Your task to perform on an android device: uninstall "LinkedIn" Image 0: 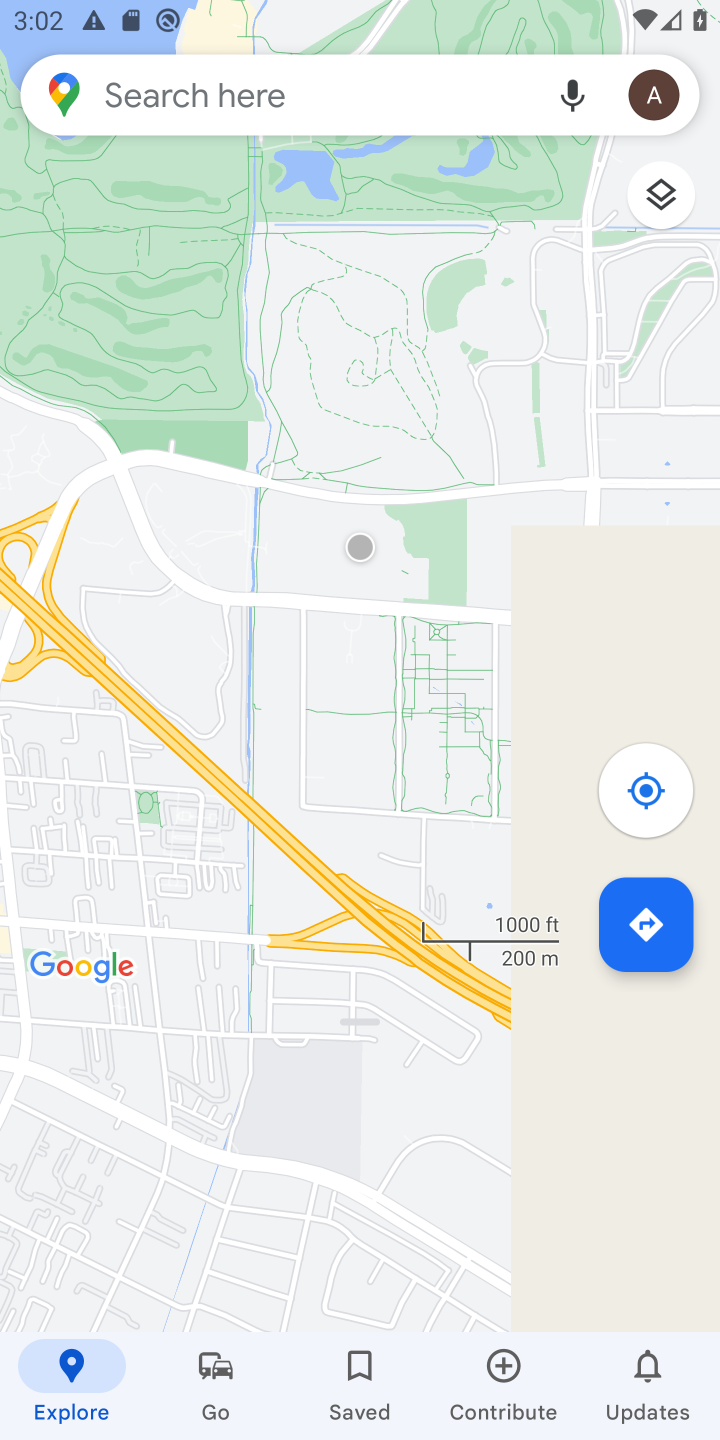
Step 0: press home button
Your task to perform on an android device: uninstall "LinkedIn" Image 1: 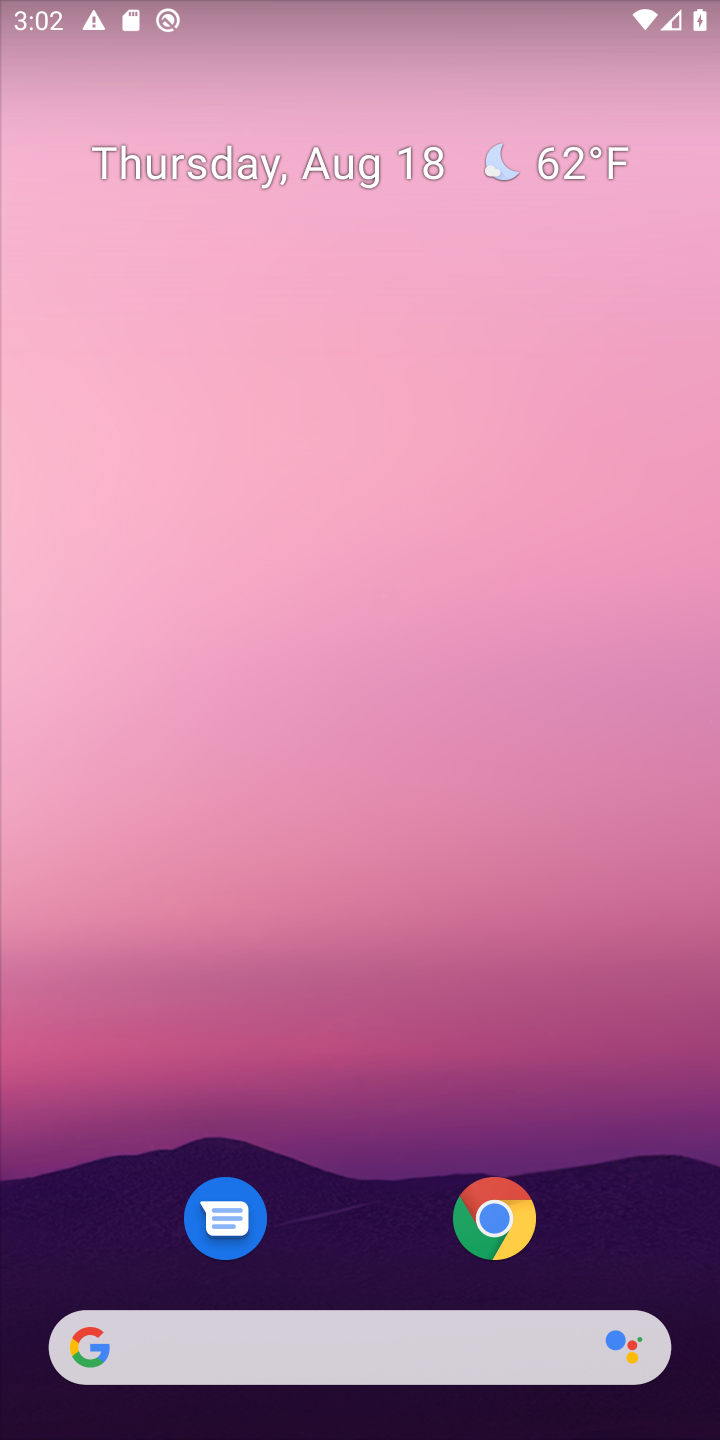
Step 1: drag from (381, 1105) to (404, 378)
Your task to perform on an android device: uninstall "LinkedIn" Image 2: 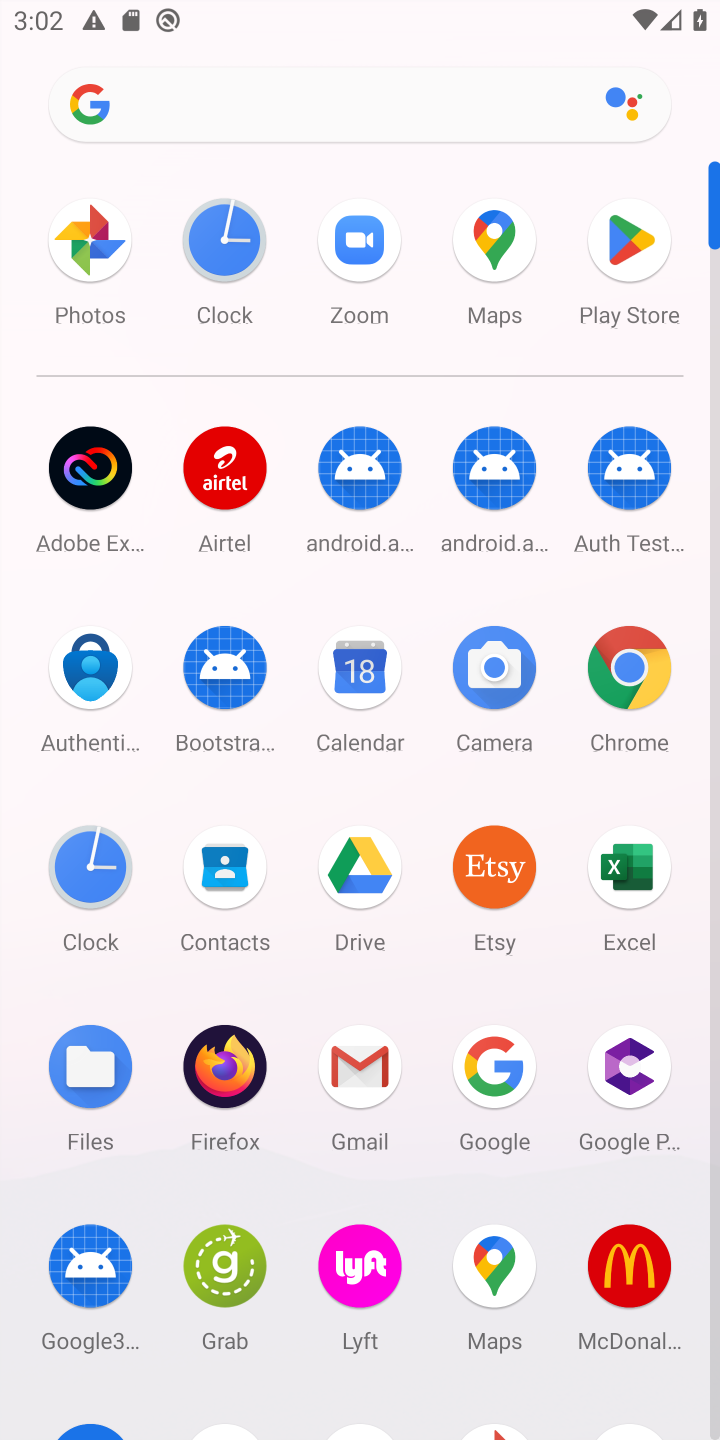
Step 2: click (609, 247)
Your task to perform on an android device: uninstall "LinkedIn" Image 3: 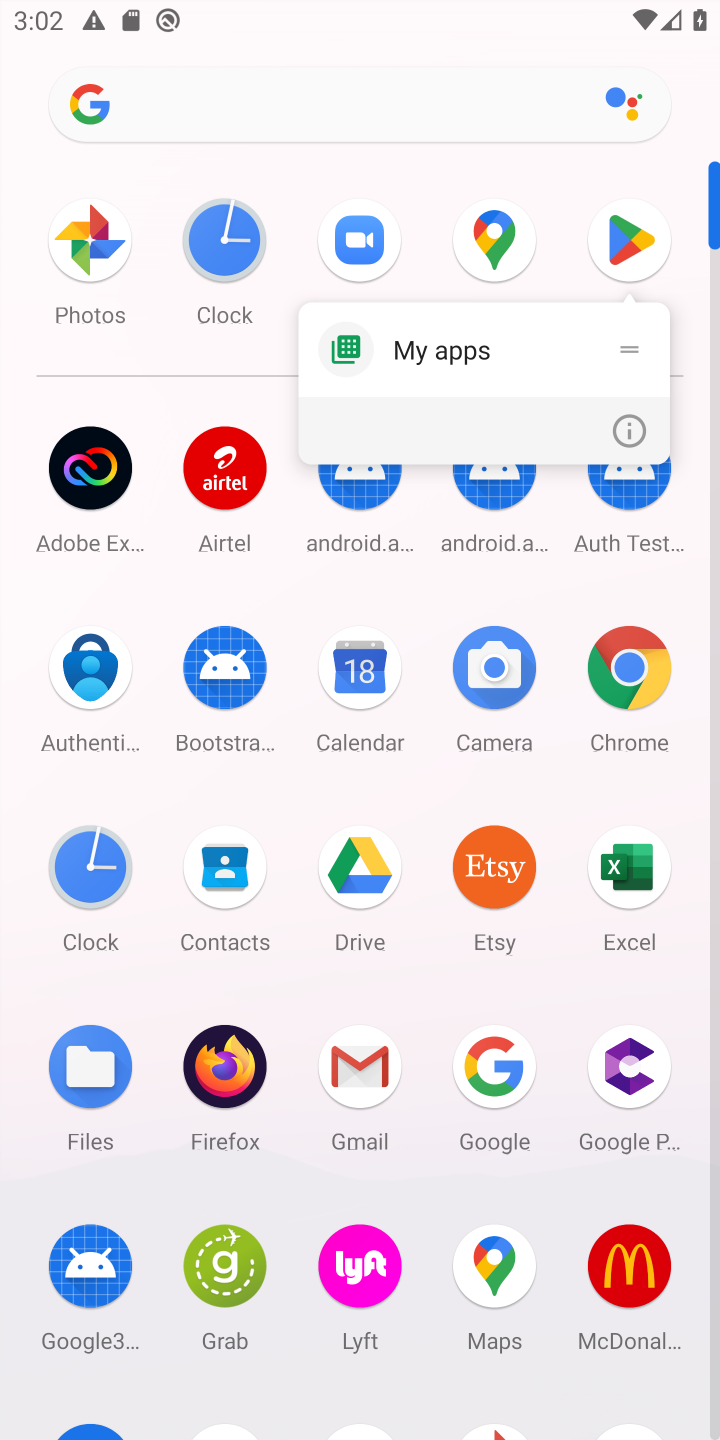
Step 3: click (601, 220)
Your task to perform on an android device: uninstall "LinkedIn" Image 4: 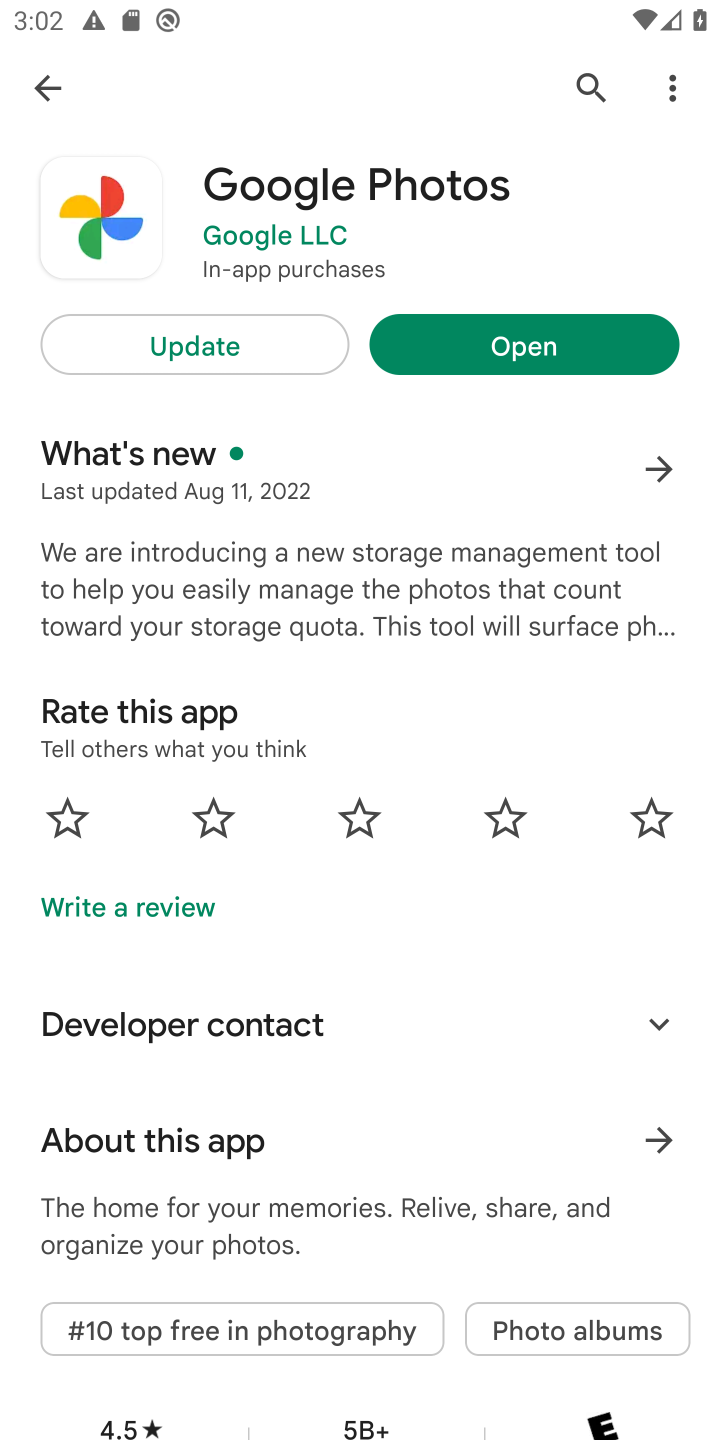
Step 4: click (577, 73)
Your task to perform on an android device: uninstall "LinkedIn" Image 5: 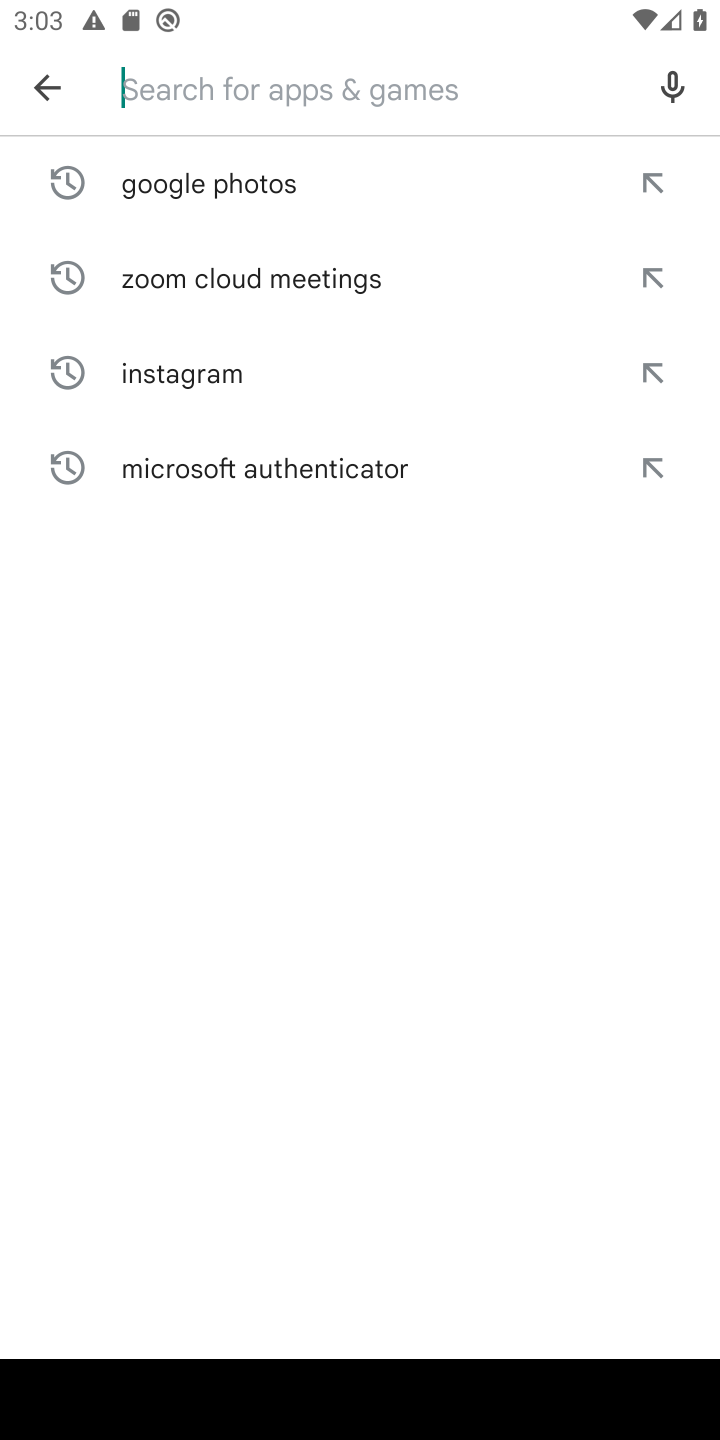
Step 5: type "LinkedIn"
Your task to perform on an android device: uninstall "LinkedIn" Image 6: 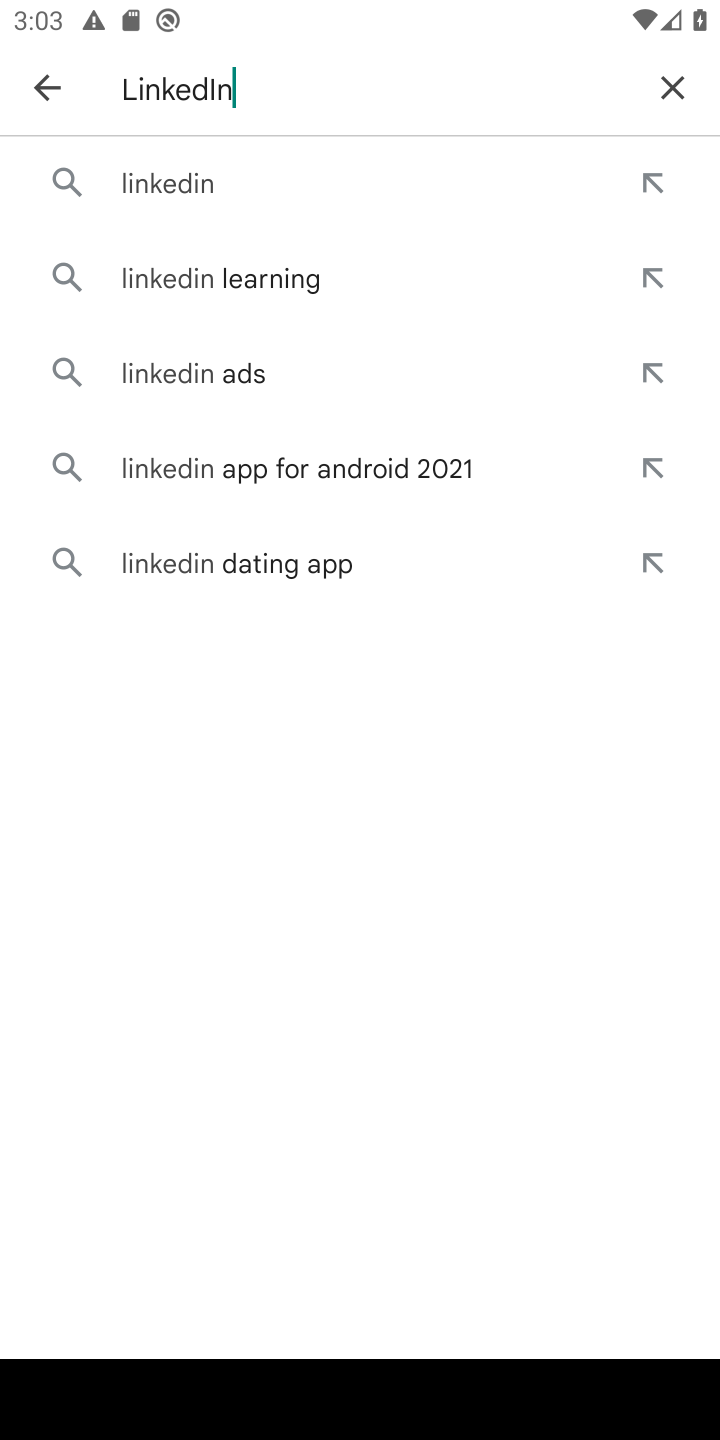
Step 6: click (215, 167)
Your task to perform on an android device: uninstall "LinkedIn" Image 7: 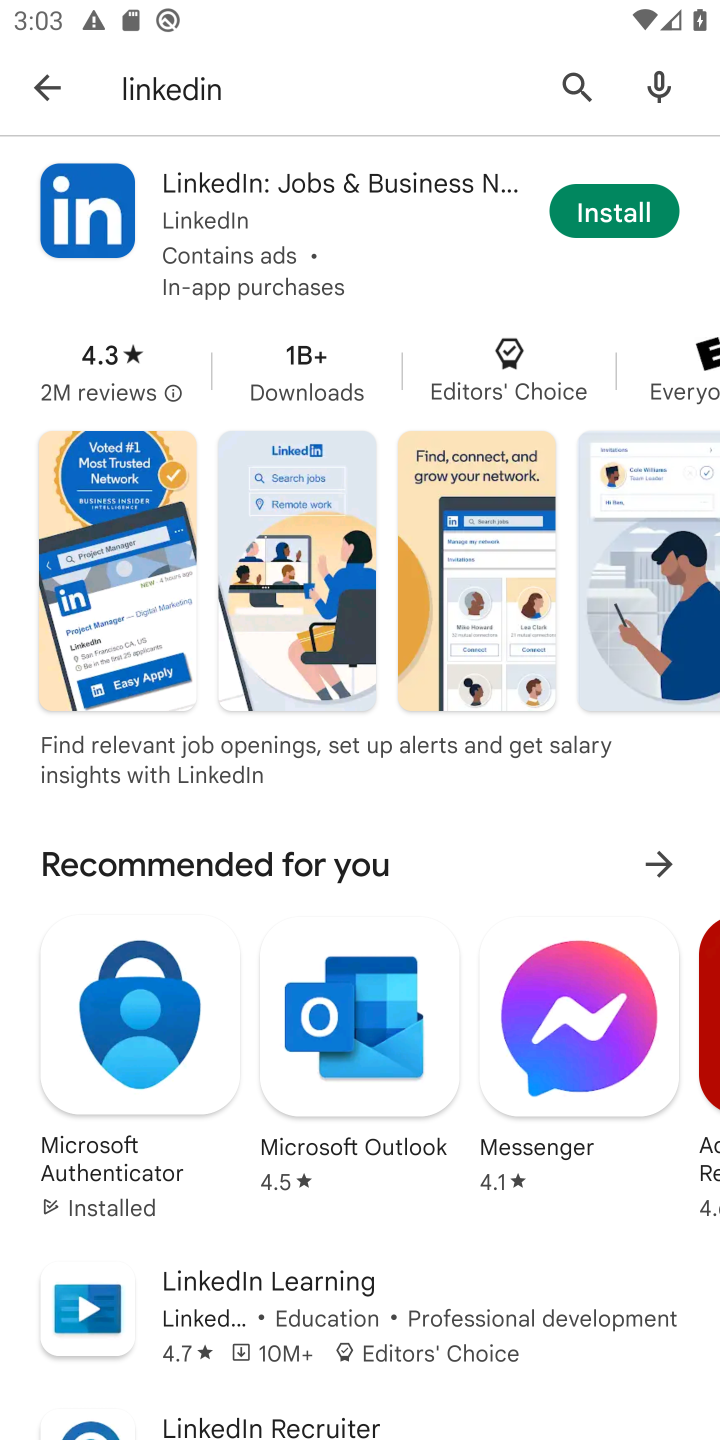
Step 7: task complete